Your task to perform on an android device: find which apps use the phone's location Image 0: 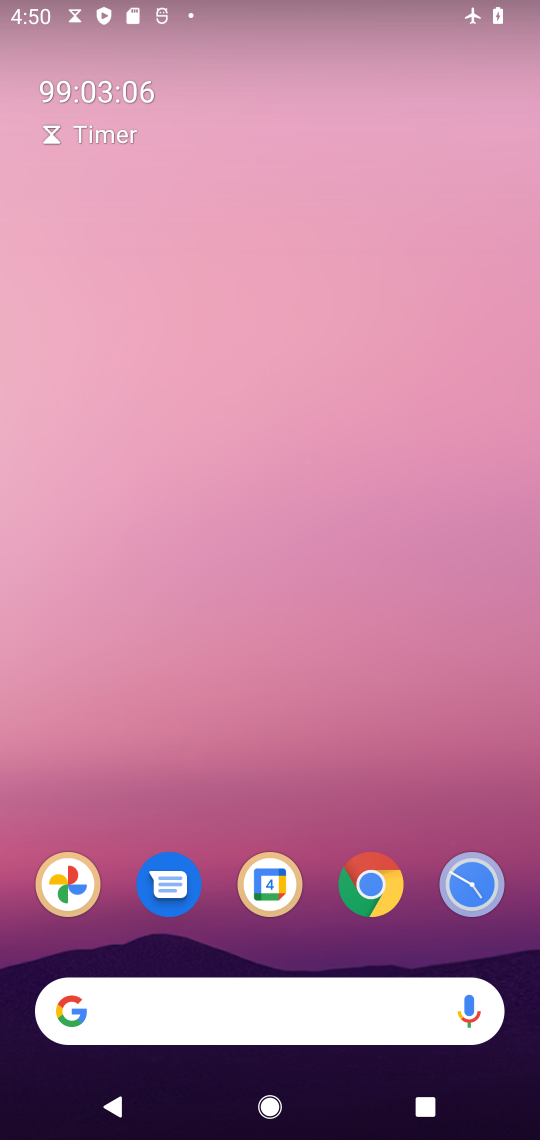
Step 0: drag from (239, 896) to (276, 185)
Your task to perform on an android device: find which apps use the phone's location Image 1: 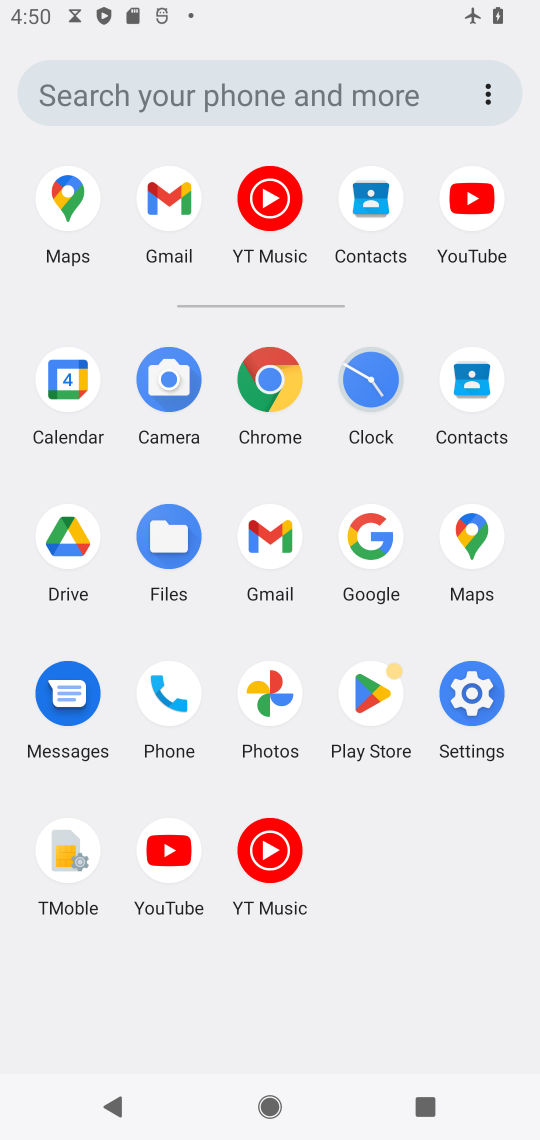
Step 1: click (454, 682)
Your task to perform on an android device: find which apps use the phone's location Image 2: 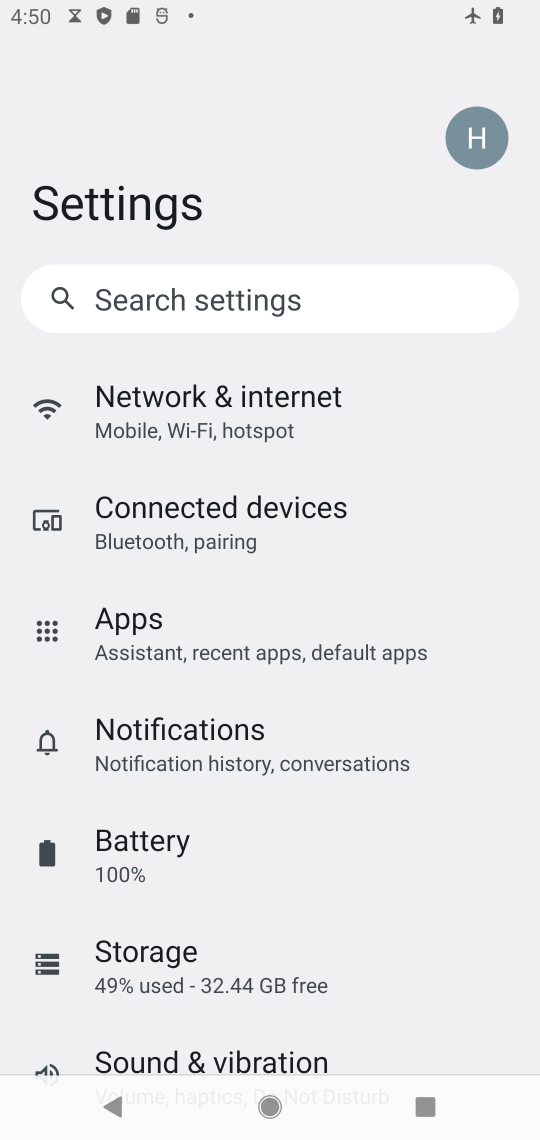
Step 2: drag from (223, 981) to (292, 354)
Your task to perform on an android device: find which apps use the phone's location Image 3: 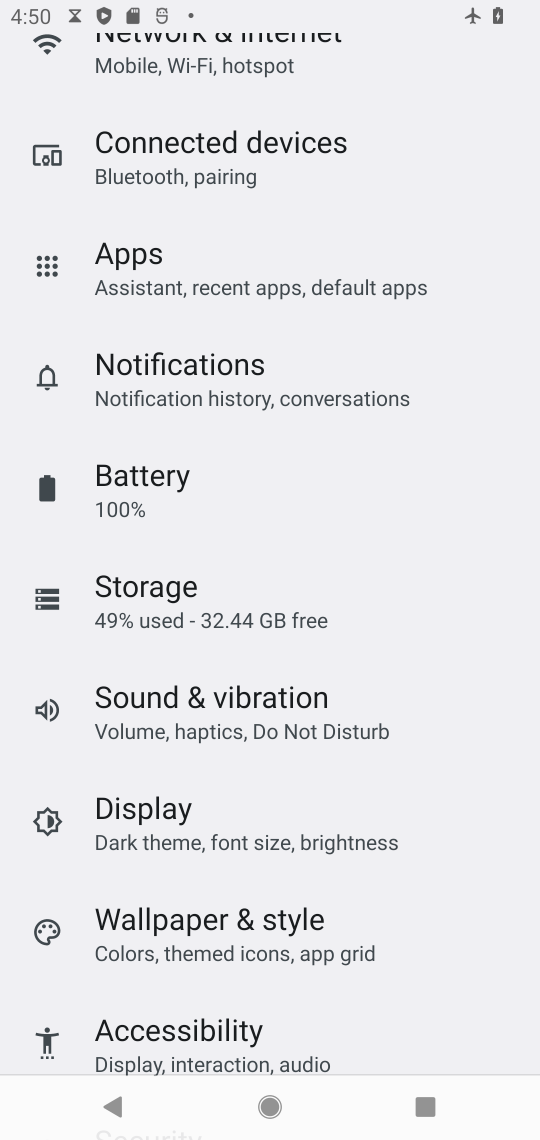
Step 3: drag from (204, 1015) to (306, 459)
Your task to perform on an android device: find which apps use the phone's location Image 4: 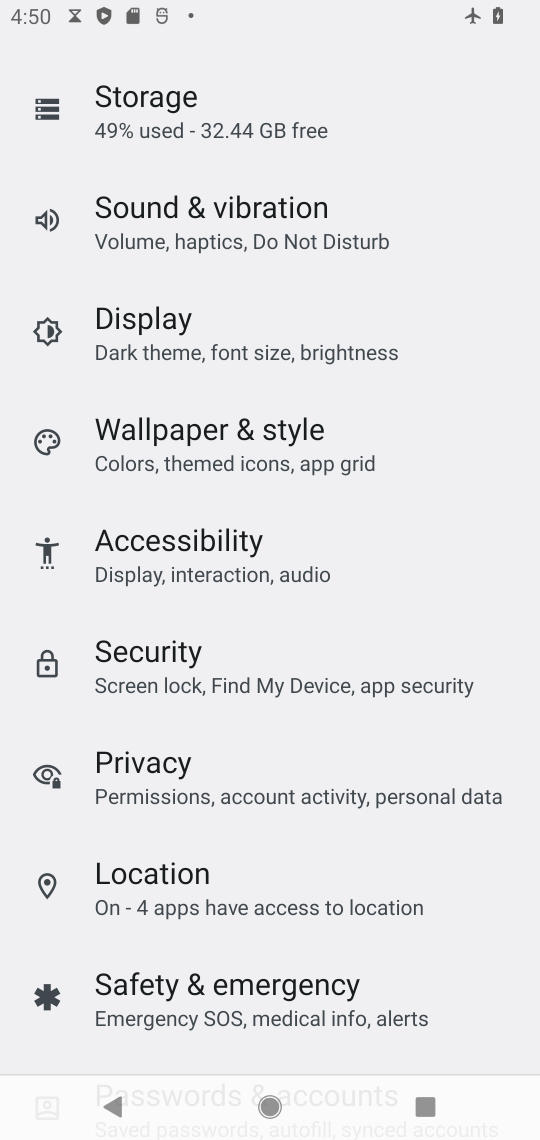
Step 4: click (207, 884)
Your task to perform on an android device: find which apps use the phone's location Image 5: 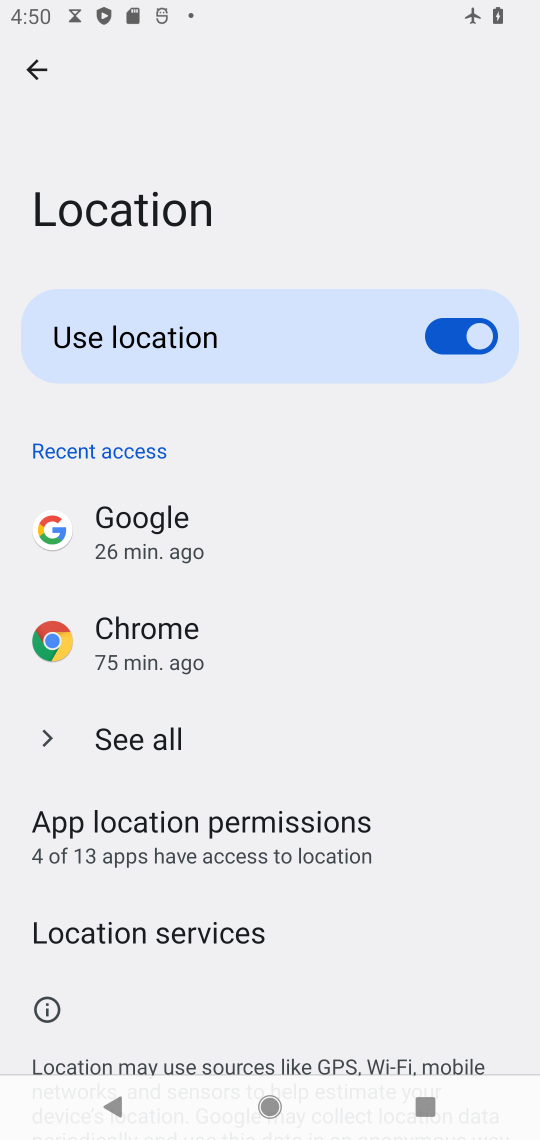
Step 5: task complete